Your task to perform on an android device: Open Google Chrome and click the shortcut for Amazon.com Image 0: 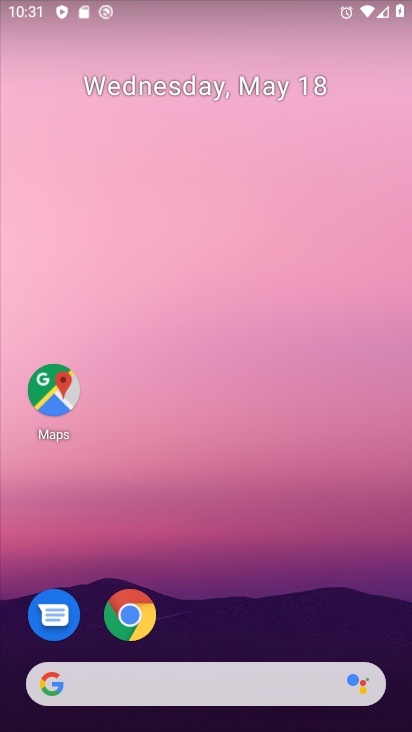
Step 0: click (113, 624)
Your task to perform on an android device: Open Google Chrome and click the shortcut for Amazon.com Image 1: 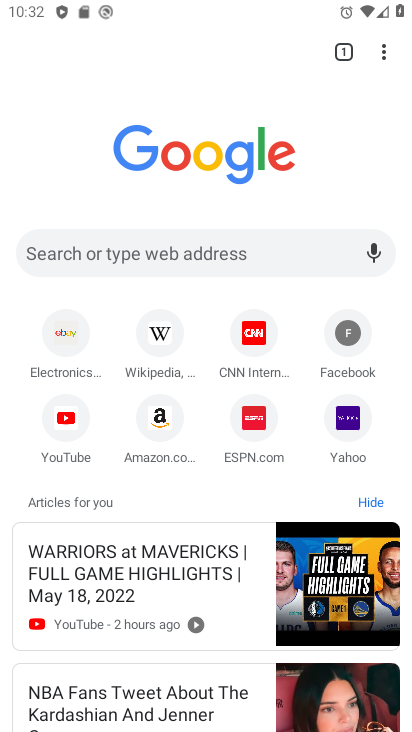
Step 1: click (168, 416)
Your task to perform on an android device: Open Google Chrome and click the shortcut for Amazon.com Image 2: 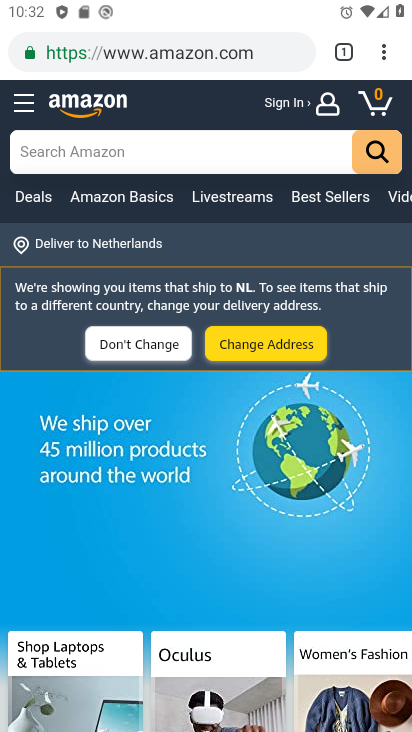
Step 2: task complete